Your task to perform on an android device: all mails in gmail Image 0: 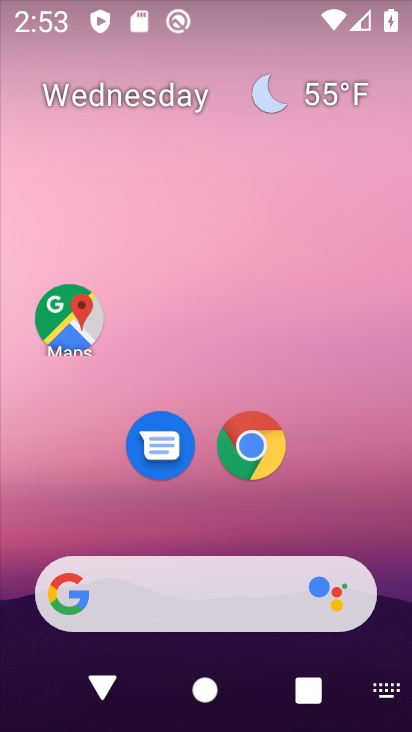
Step 0: drag from (322, 395) to (320, 27)
Your task to perform on an android device: all mails in gmail Image 1: 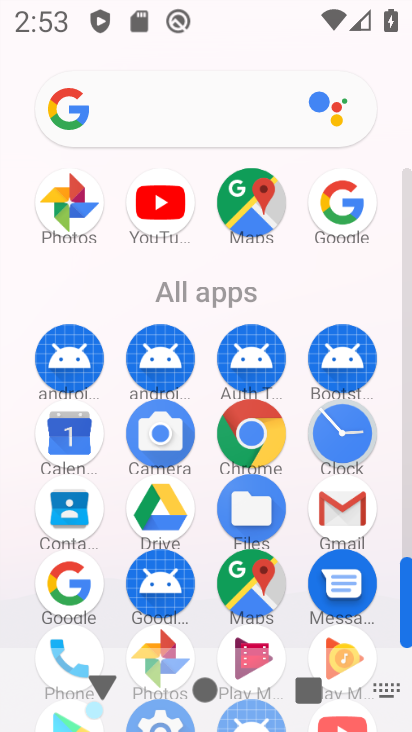
Step 1: drag from (246, 432) to (281, 223)
Your task to perform on an android device: all mails in gmail Image 2: 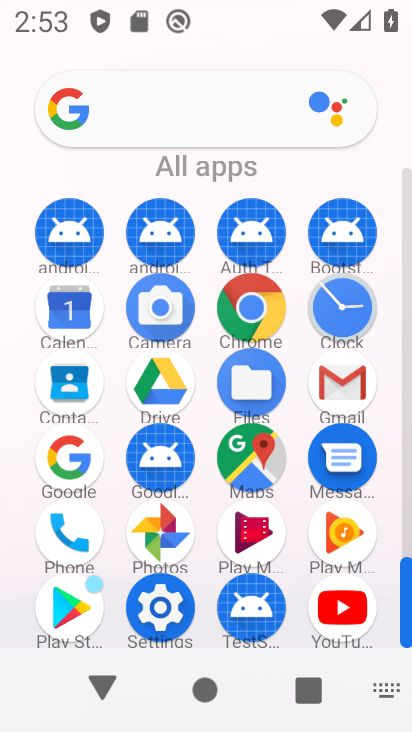
Step 2: click (329, 359)
Your task to perform on an android device: all mails in gmail Image 3: 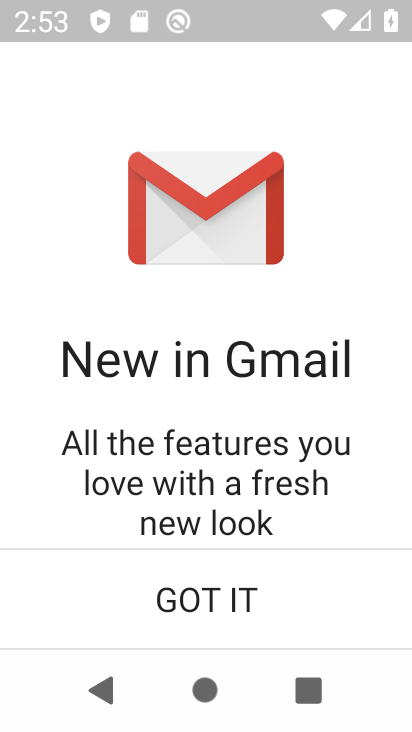
Step 3: click (244, 623)
Your task to perform on an android device: all mails in gmail Image 4: 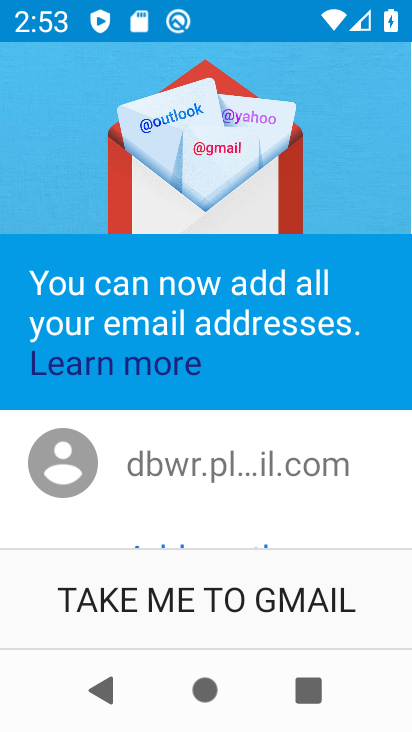
Step 4: click (237, 614)
Your task to perform on an android device: all mails in gmail Image 5: 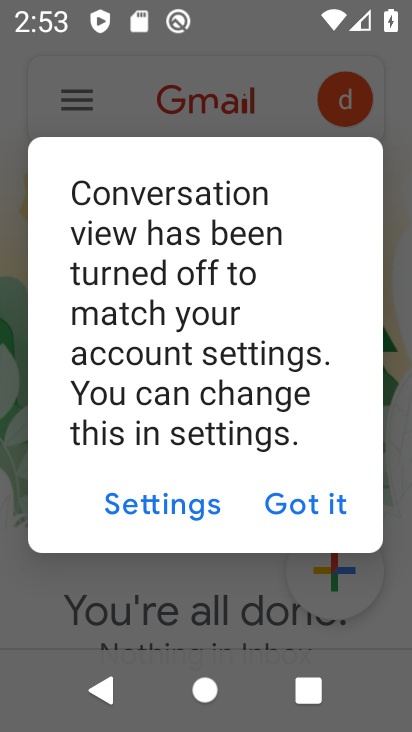
Step 5: click (275, 498)
Your task to perform on an android device: all mails in gmail Image 6: 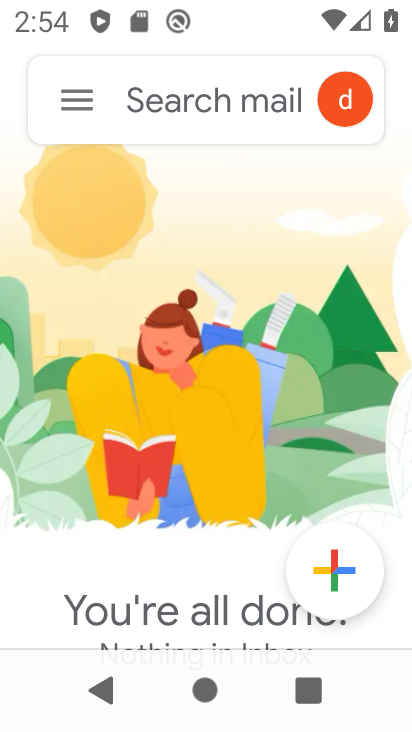
Step 6: click (67, 100)
Your task to perform on an android device: all mails in gmail Image 7: 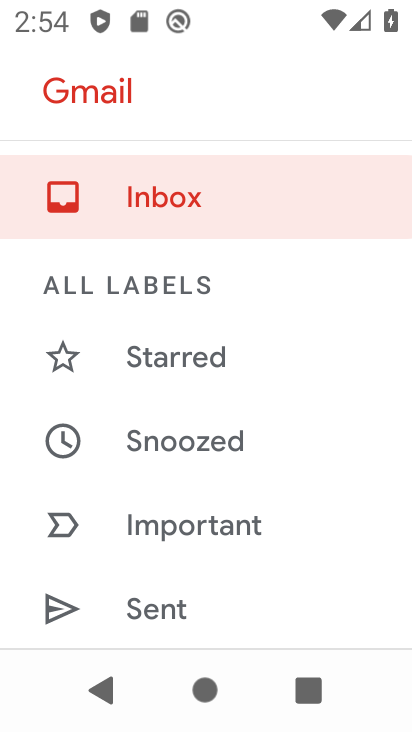
Step 7: drag from (205, 506) to (246, 146)
Your task to perform on an android device: all mails in gmail Image 8: 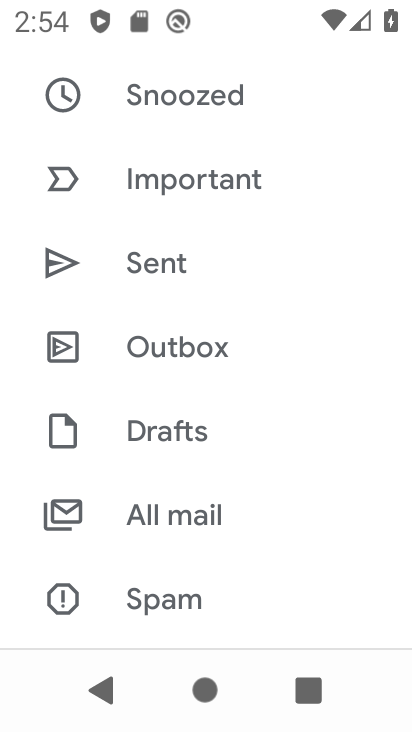
Step 8: click (209, 499)
Your task to perform on an android device: all mails in gmail Image 9: 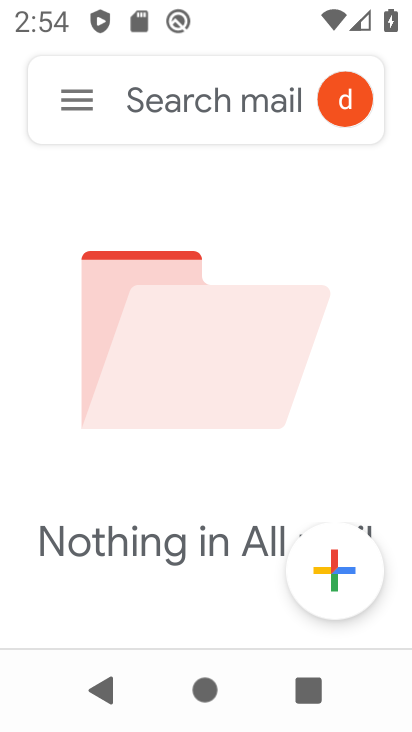
Step 9: task complete